Your task to perform on an android device: Open internet settings Image 0: 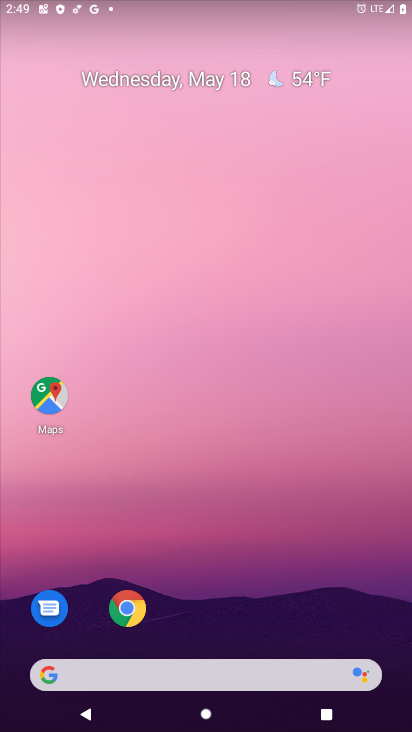
Step 0: drag from (246, 606) to (229, 25)
Your task to perform on an android device: Open internet settings Image 1: 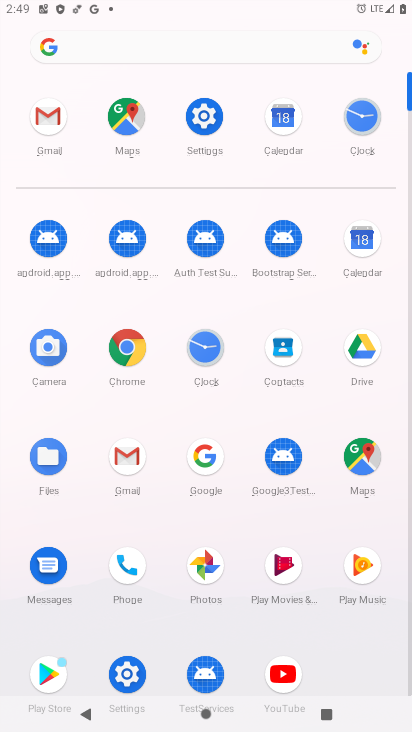
Step 1: click (206, 114)
Your task to perform on an android device: Open internet settings Image 2: 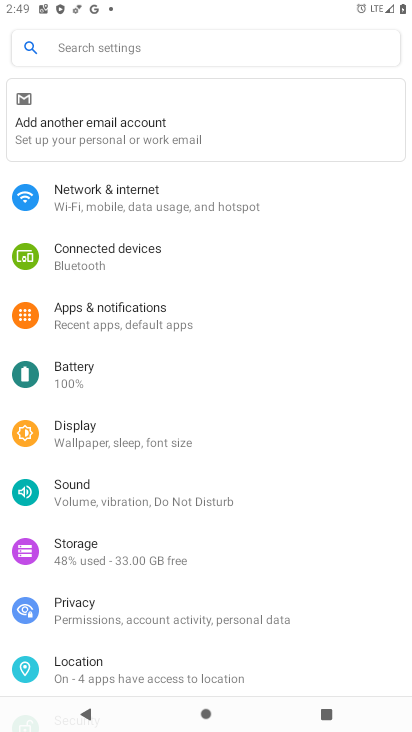
Step 2: click (100, 191)
Your task to perform on an android device: Open internet settings Image 3: 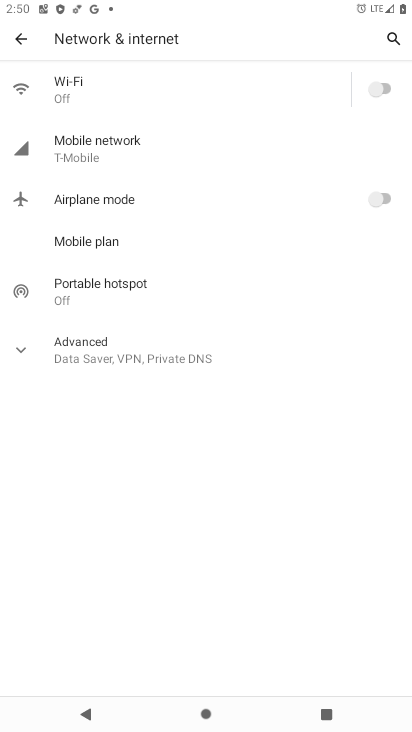
Step 3: task complete